Your task to perform on an android device: Go to Maps Image 0: 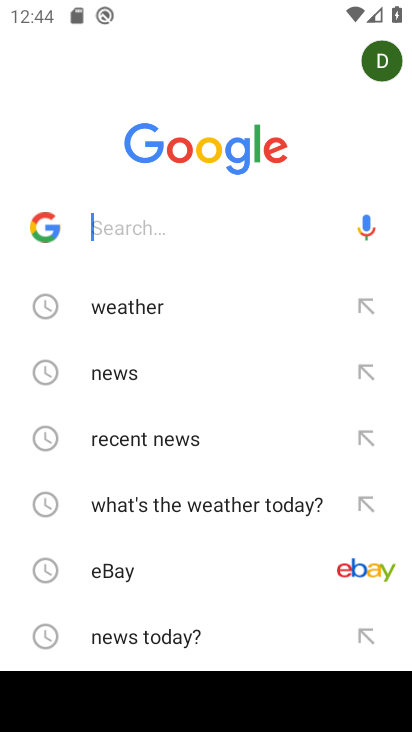
Step 0: press home button
Your task to perform on an android device: Go to Maps Image 1: 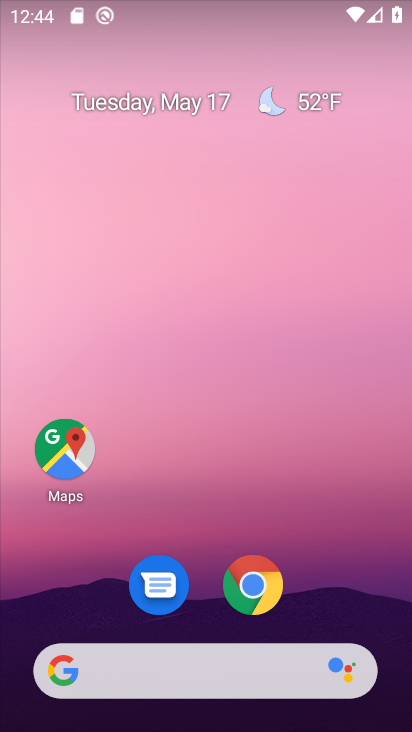
Step 1: click (60, 446)
Your task to perform on an android device: Go to Maps Image 2: 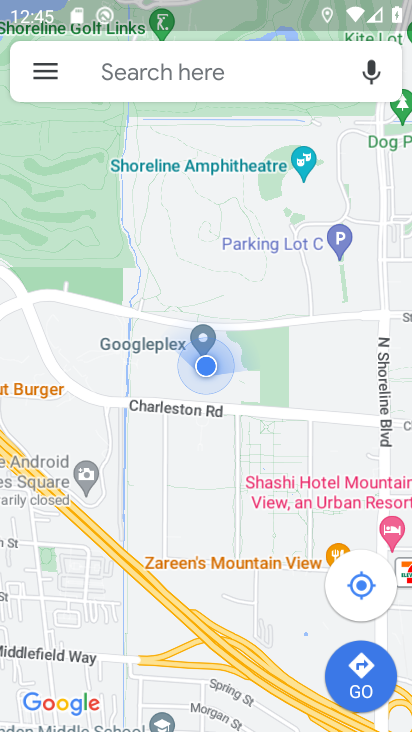
Step 2: task complete